Your task to perform on an android device: empty trash in google photos Image 0: 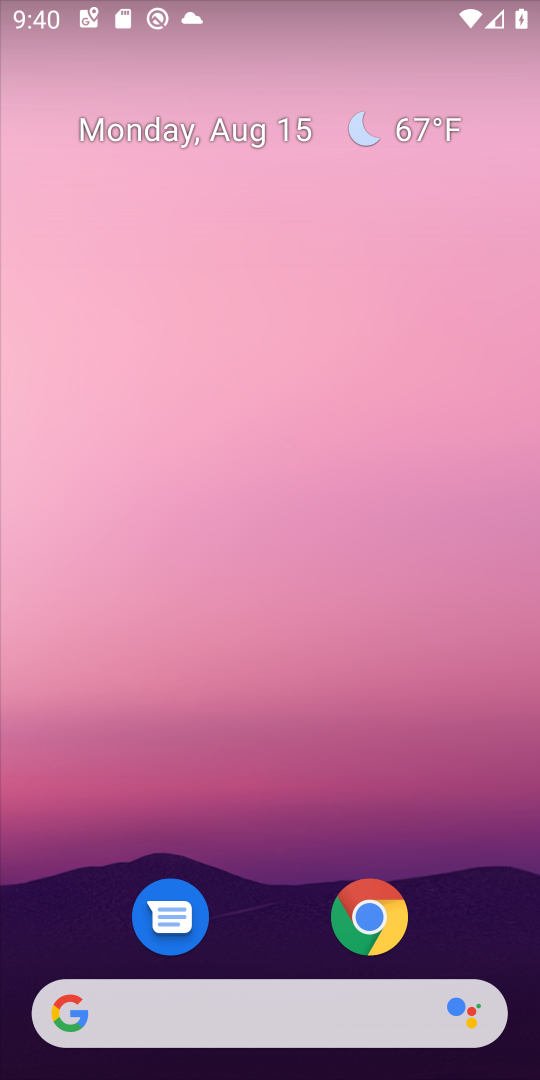
Step 0: drag from (319, 653) to (365, 0)
Your task to perform on an android device: empty trash in google photos Image 1: 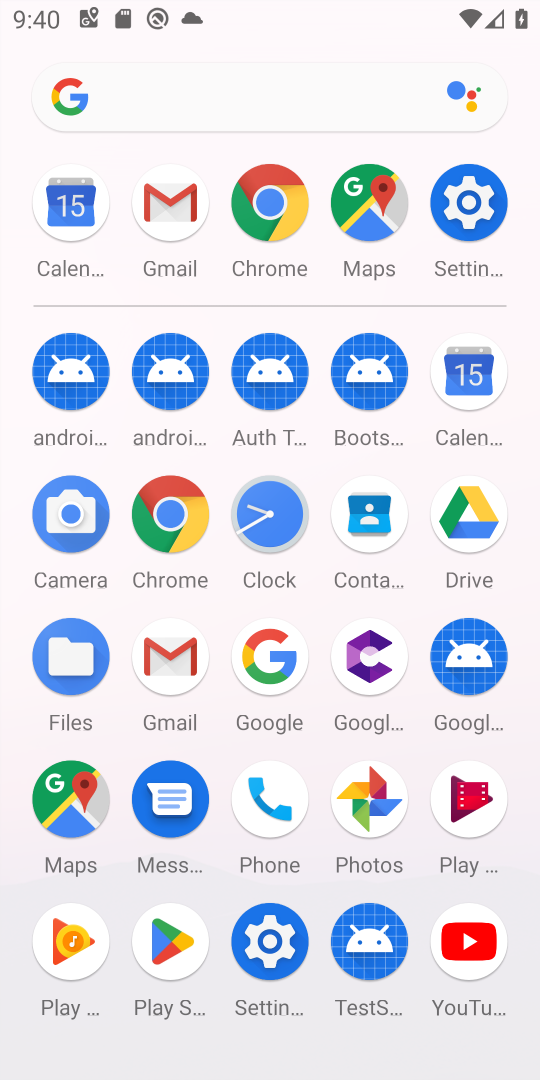
Step 1: click (366, 797)
Your task to perform on an android device: empty trash in google photos Image 2: 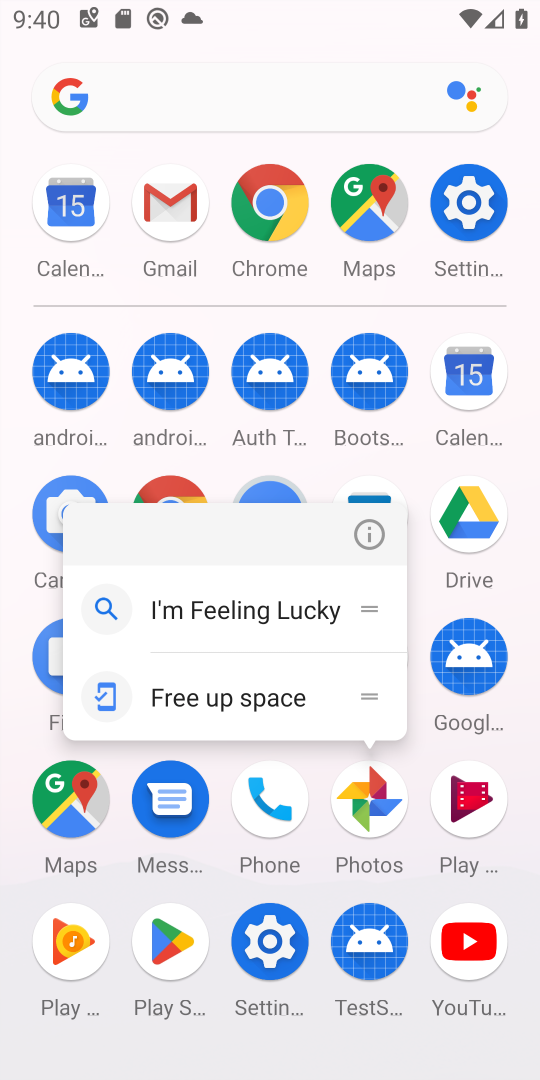
Step 2: click (369, 790)
Your task to perform on an android device: empty trash in google photos Image 3: 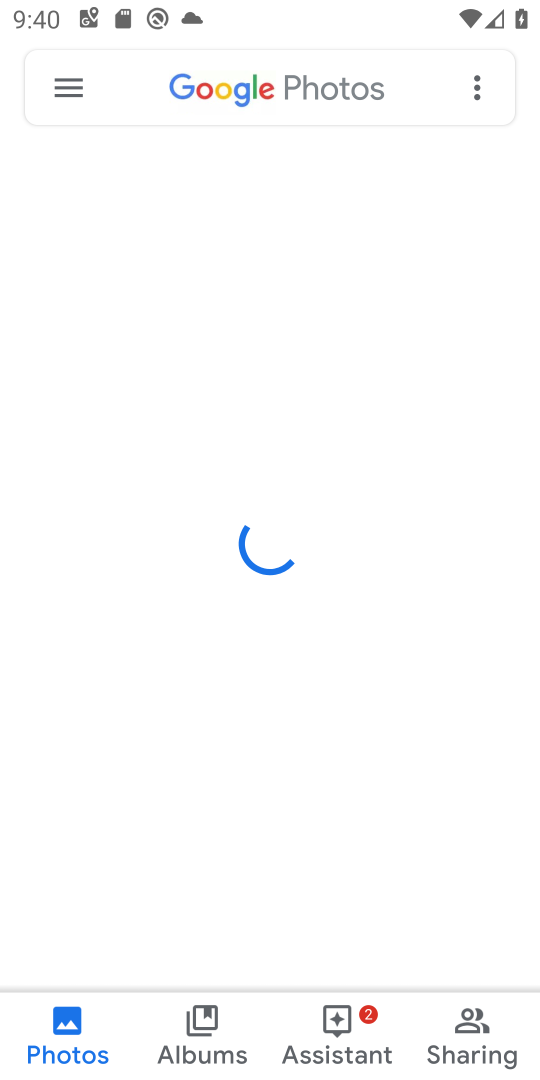
Step 3: click (64, 87)
Your task to perform on an android device: empty trash in google photos Image 4: 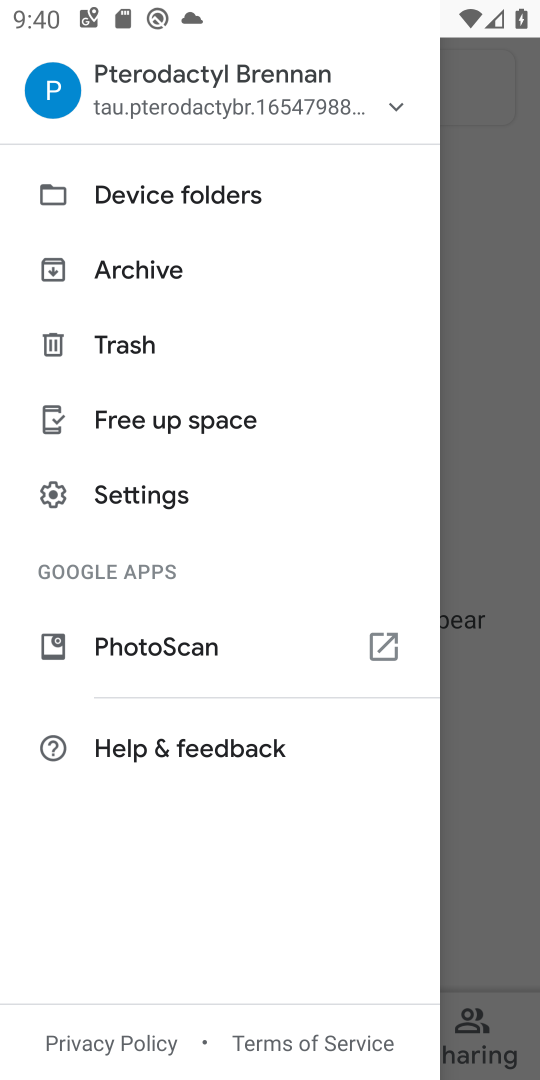
Step 4: click (135, 339)
Your task to perform on an android device: empty trash in google photos Image 5: 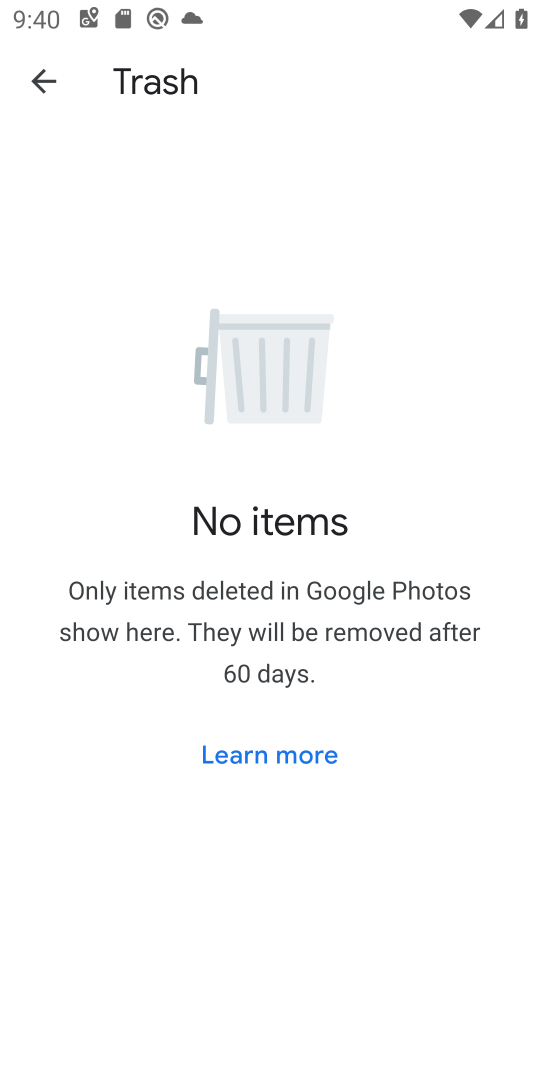
Step 5: task complete